Your task to perform on an android device: Open calendar and show me the fourth week of next month Image 0: 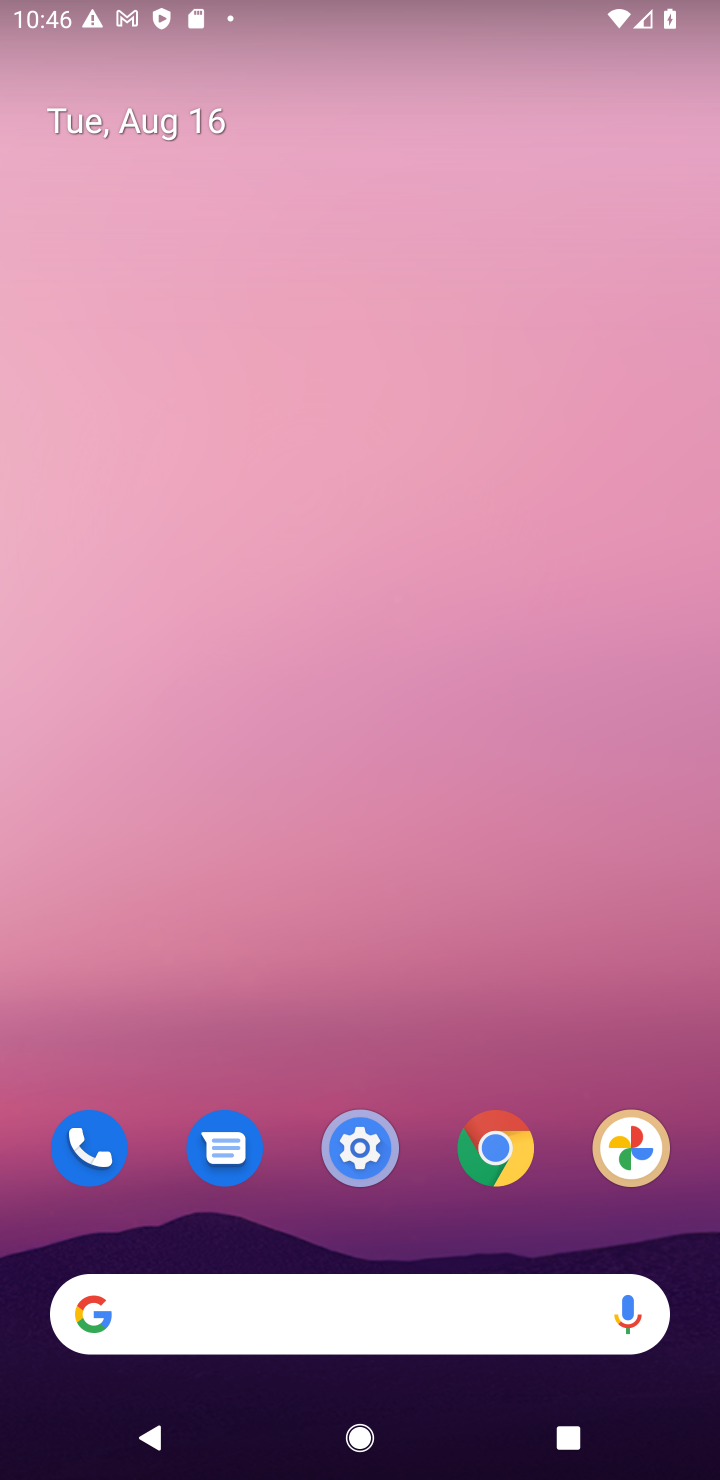
Step 0: press home button
Your task to perform on an android device: Open calendar and show me the fourth week of next month Image 1: 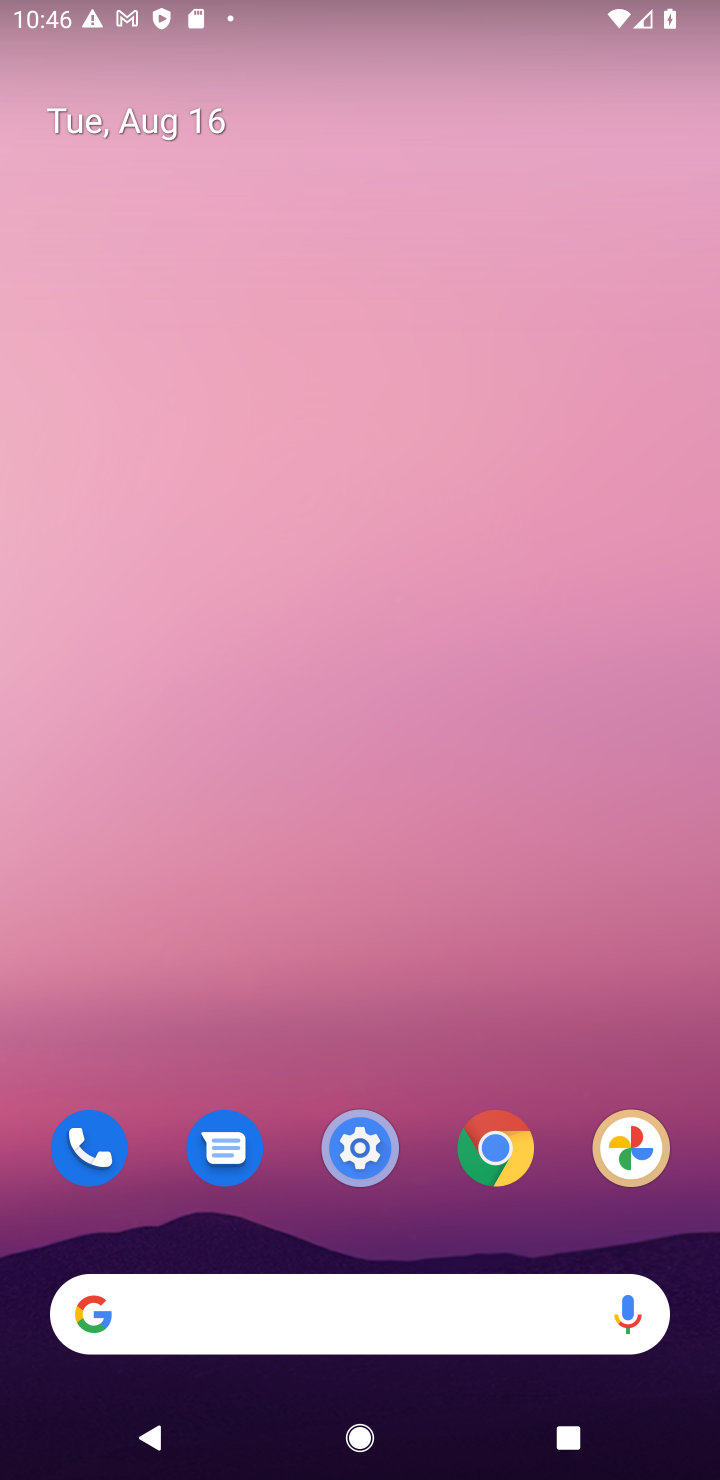
Step 1: press home button
Your task to perform on an android device: Open calendar and show me the fourth week of next month Image 2: 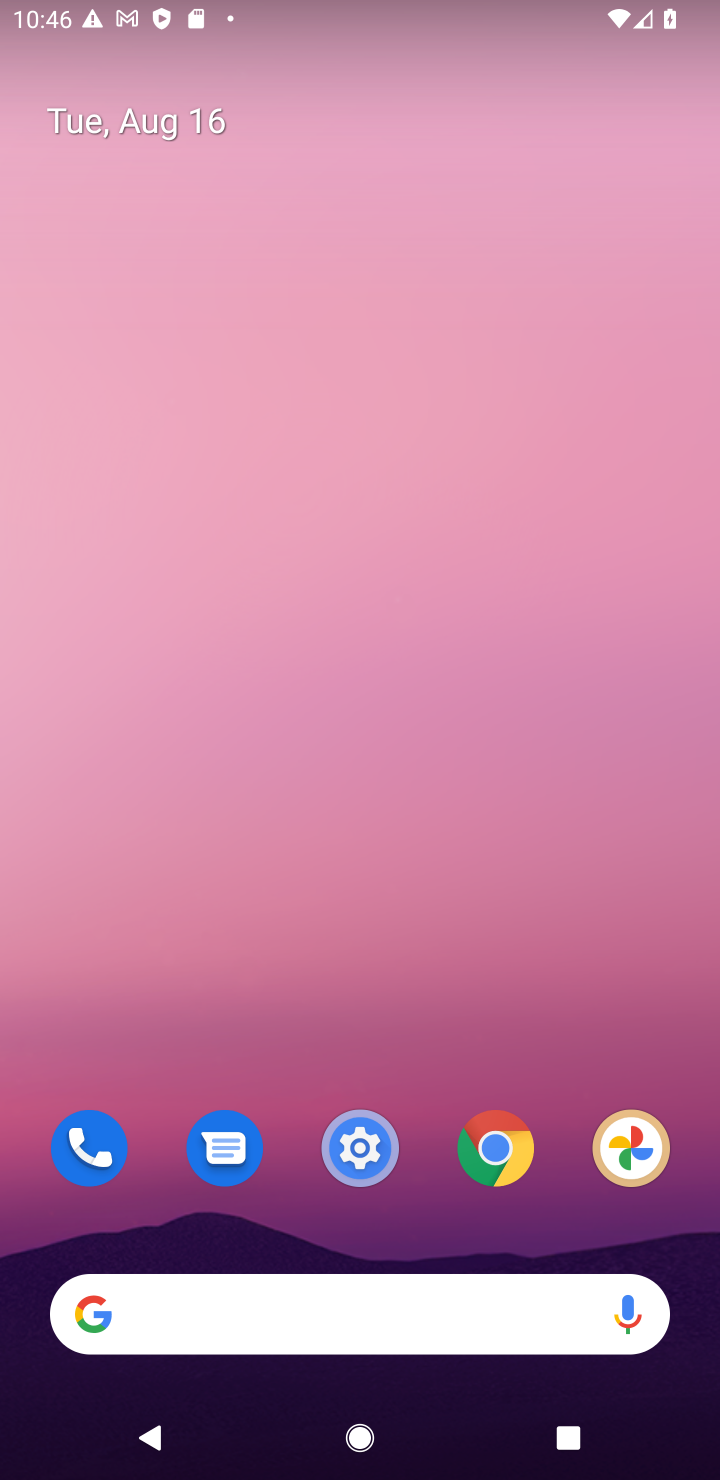
Step 2: press home button
Your task to perform on an android device: Open calendar and show me the fourth week of next month Image 3: 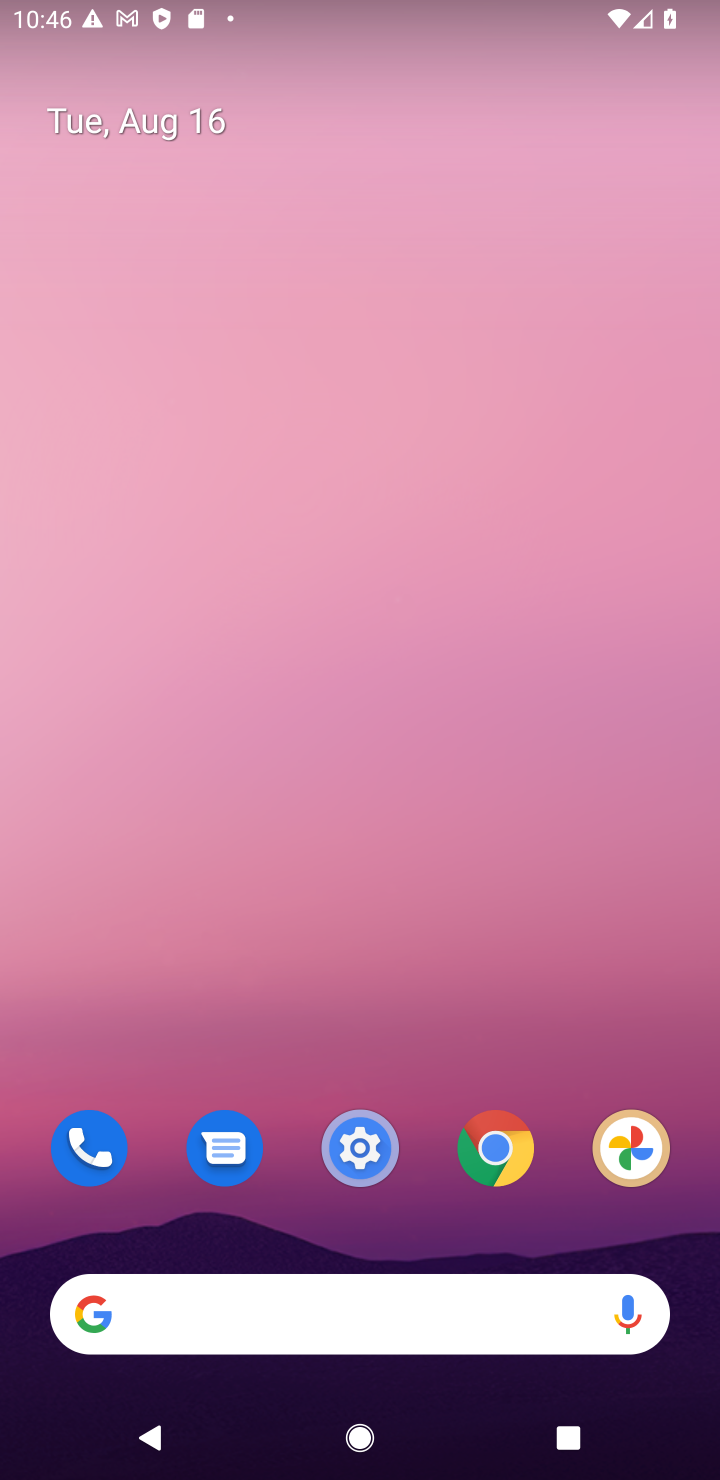
Step 3: press home button
Your task to perform on an android device: Open calendar and show me the fourth week of next month Image 4: 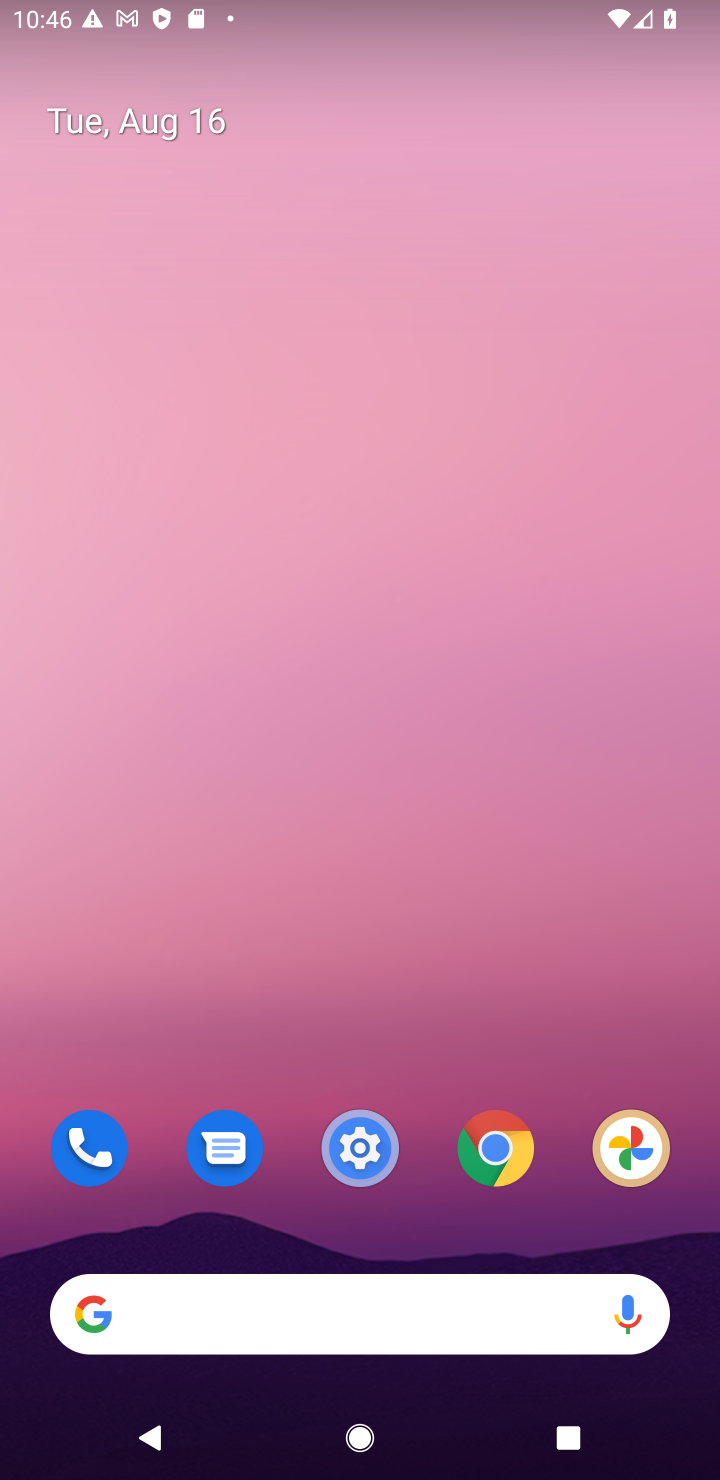
Step 4: press home button
Your task to perform on an android device: Open calendar and show me the fourth week of next month Image 5: 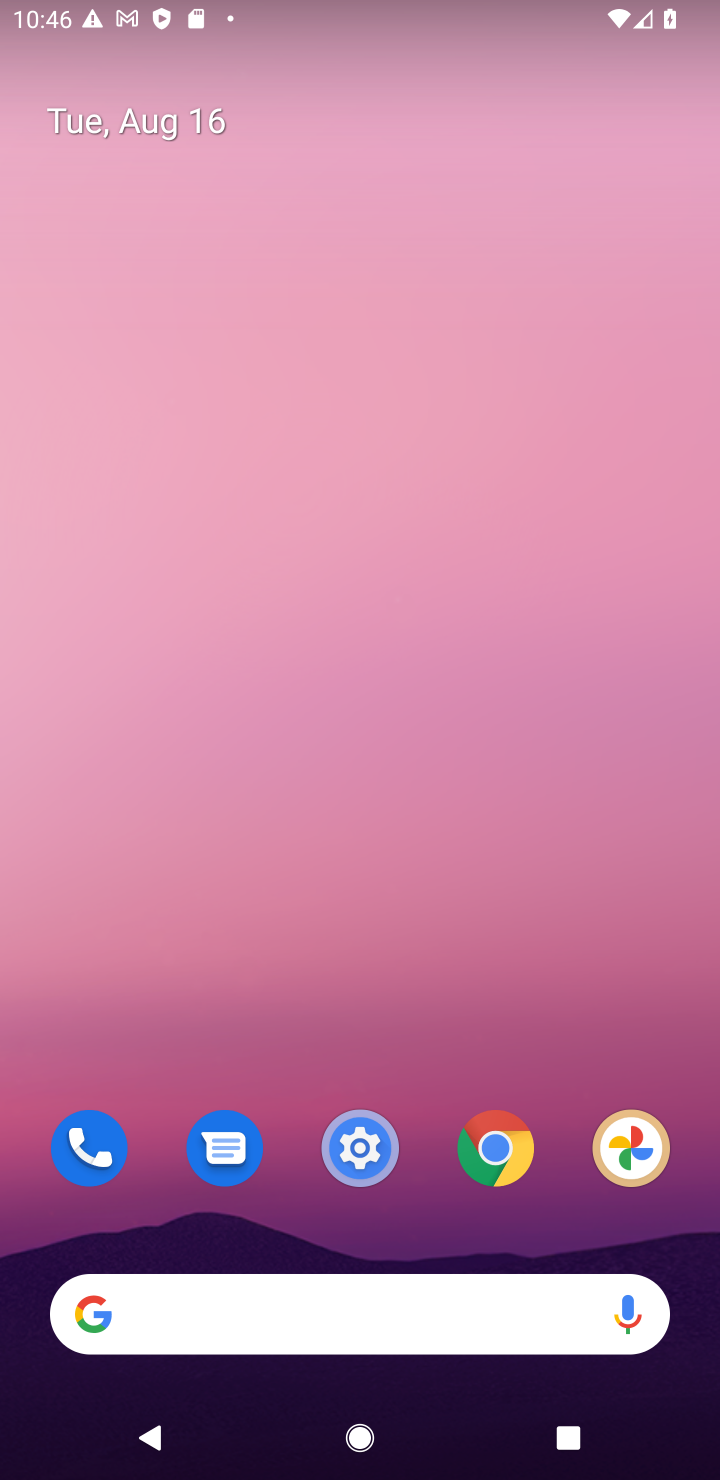
Step 5: press home button
Your task to perform on an android device: Open calendar and show me the fourth week of next month Image 6: 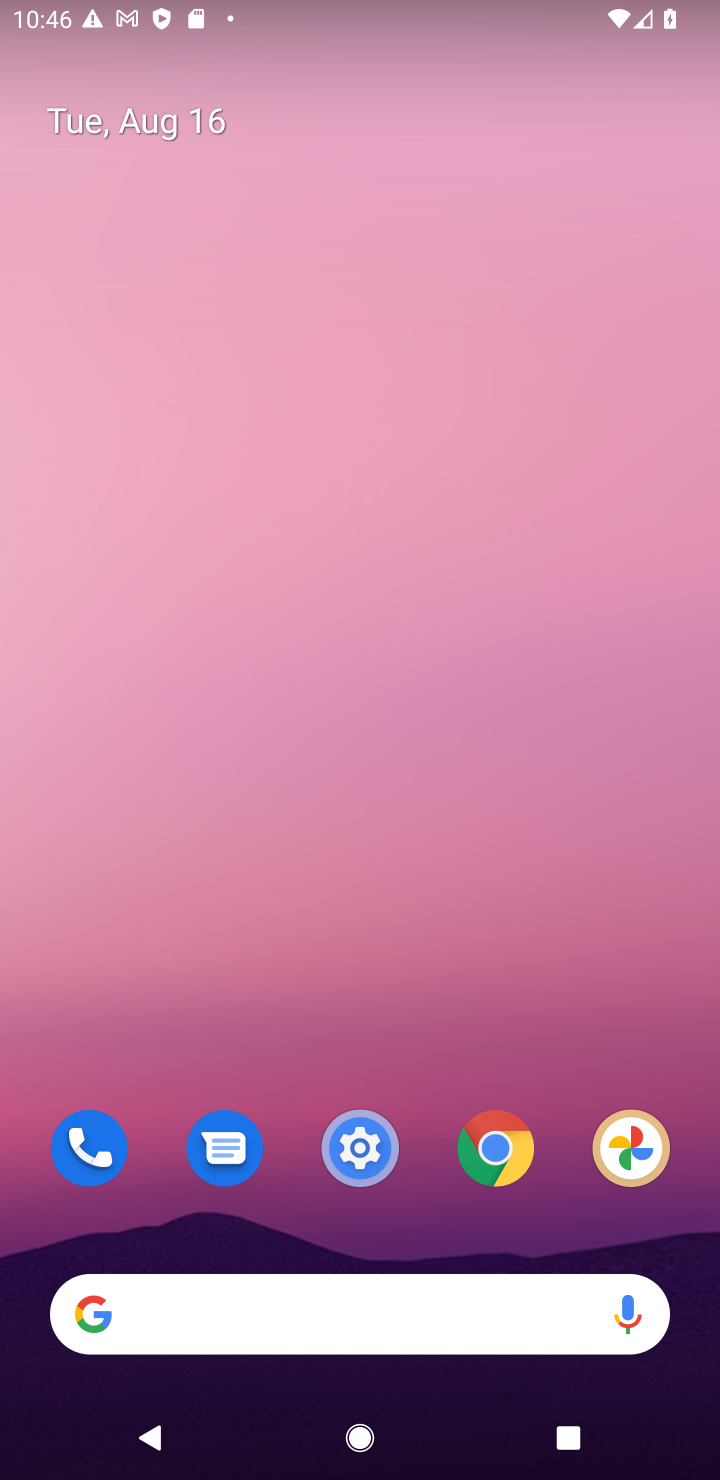
Step 6: press home button
Your task to perform on an android device: Open calendar and show me the fourth week of next month Image 7: 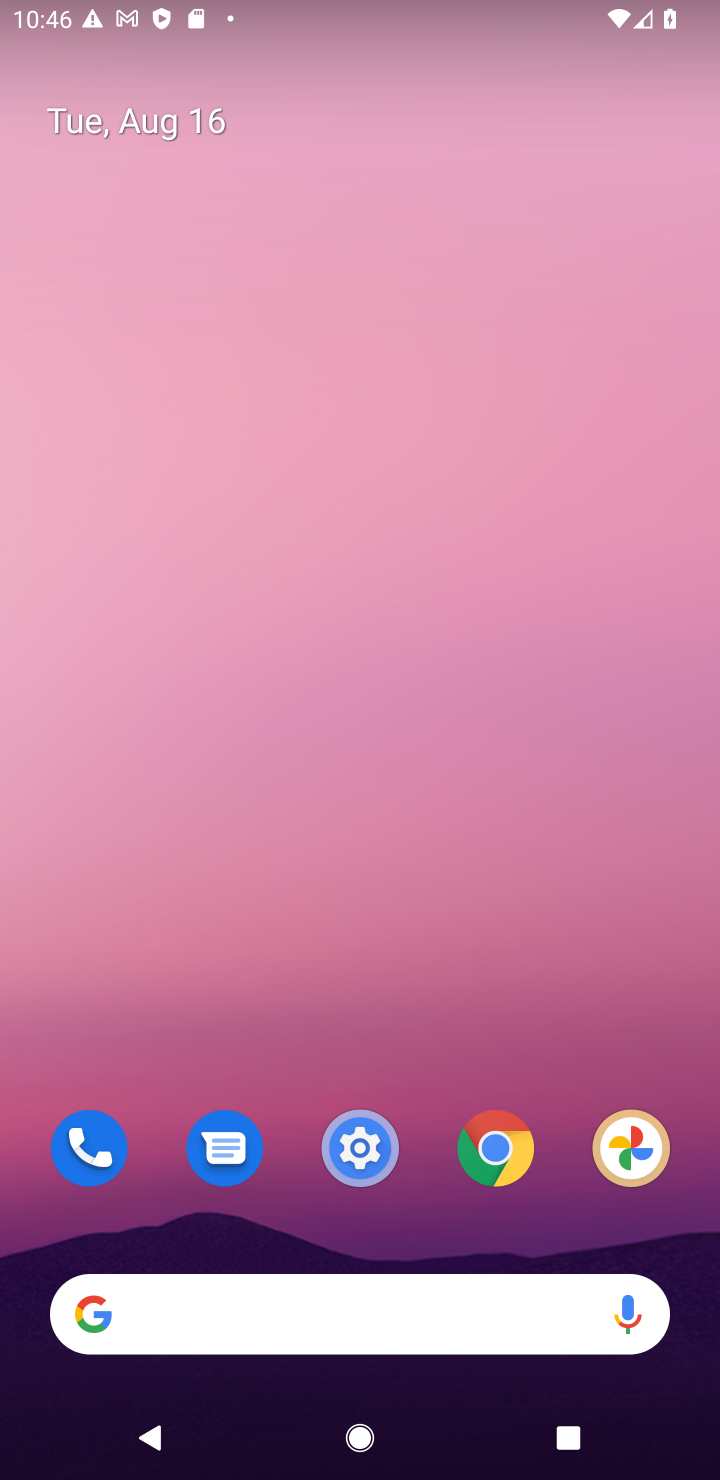
Step 7: press home button
Your task to perform on an android device: Open calendar and show me the fourth week of next month Image 8: 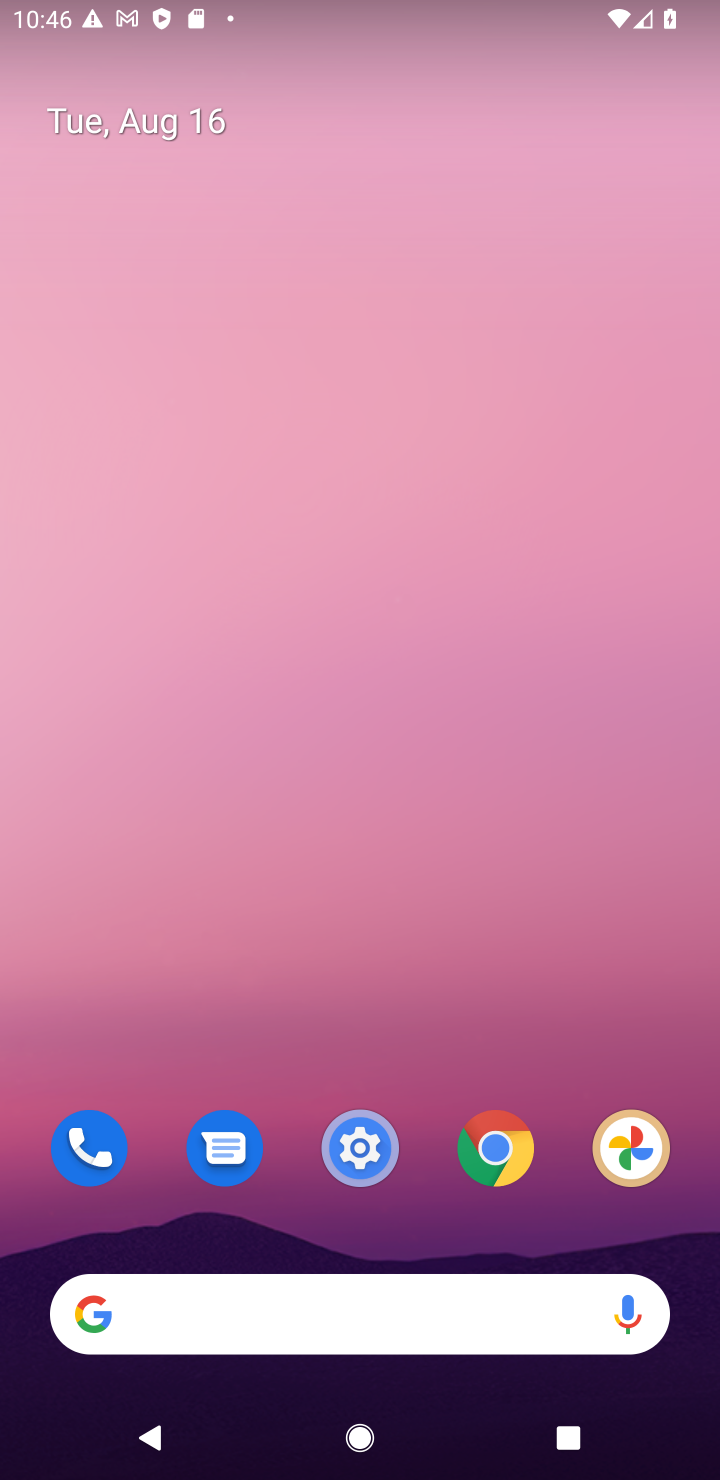
Step 8: press home button
Your task to perform on an android device: Open calendar and show me the fourth week of next month Image 9: 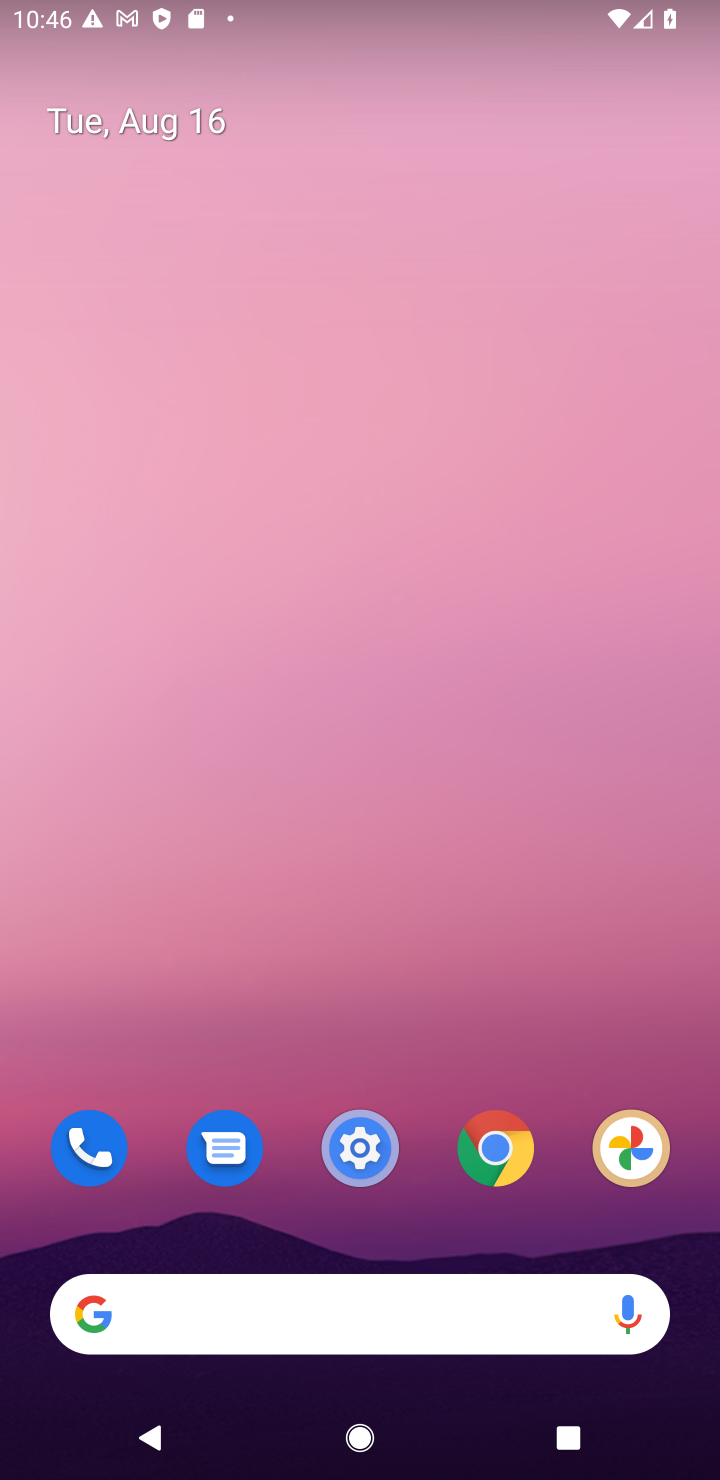
Step 9: press home button
Your task to perform on an android device: Open calendar and show me the fourth week of next month Image 10: 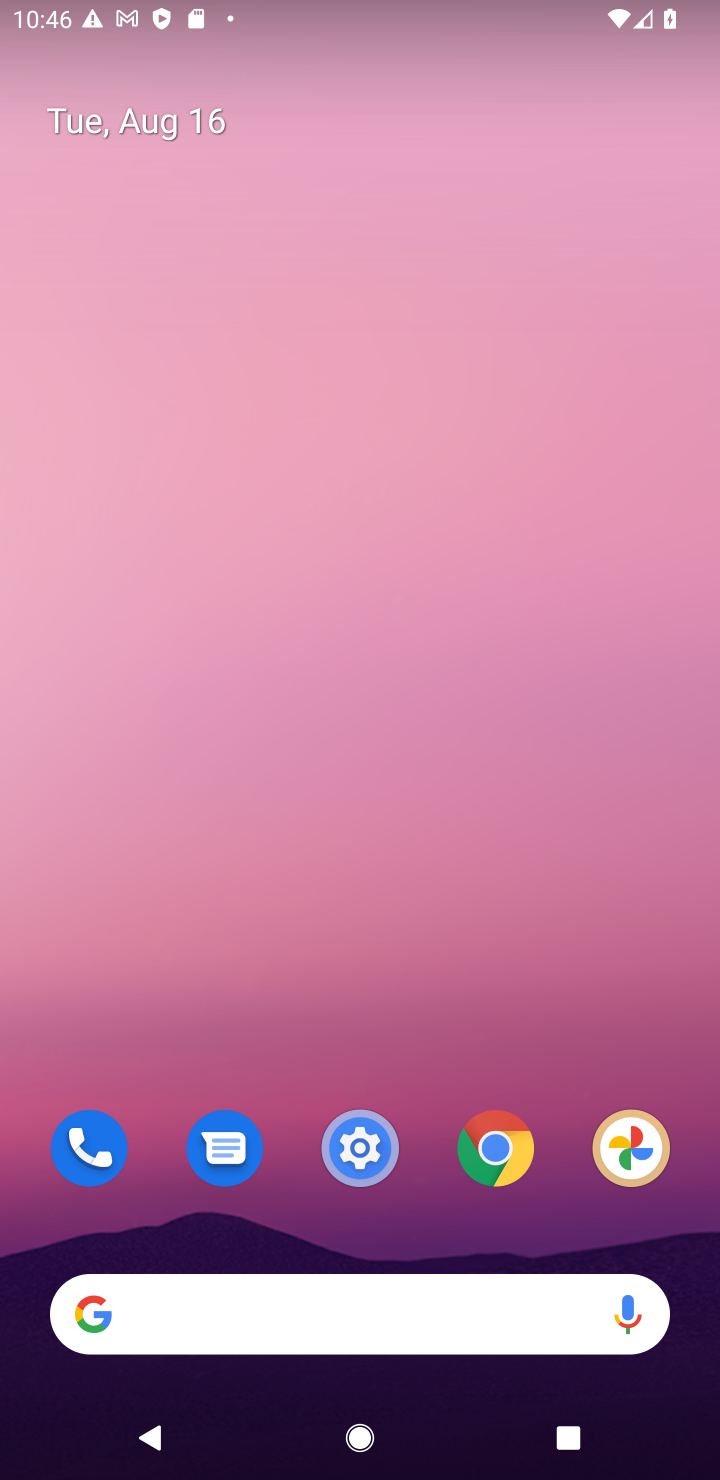
Step 10: press home button
Your task to perform on an android device: Open calendar and show me the fourth week of next month Image 11: 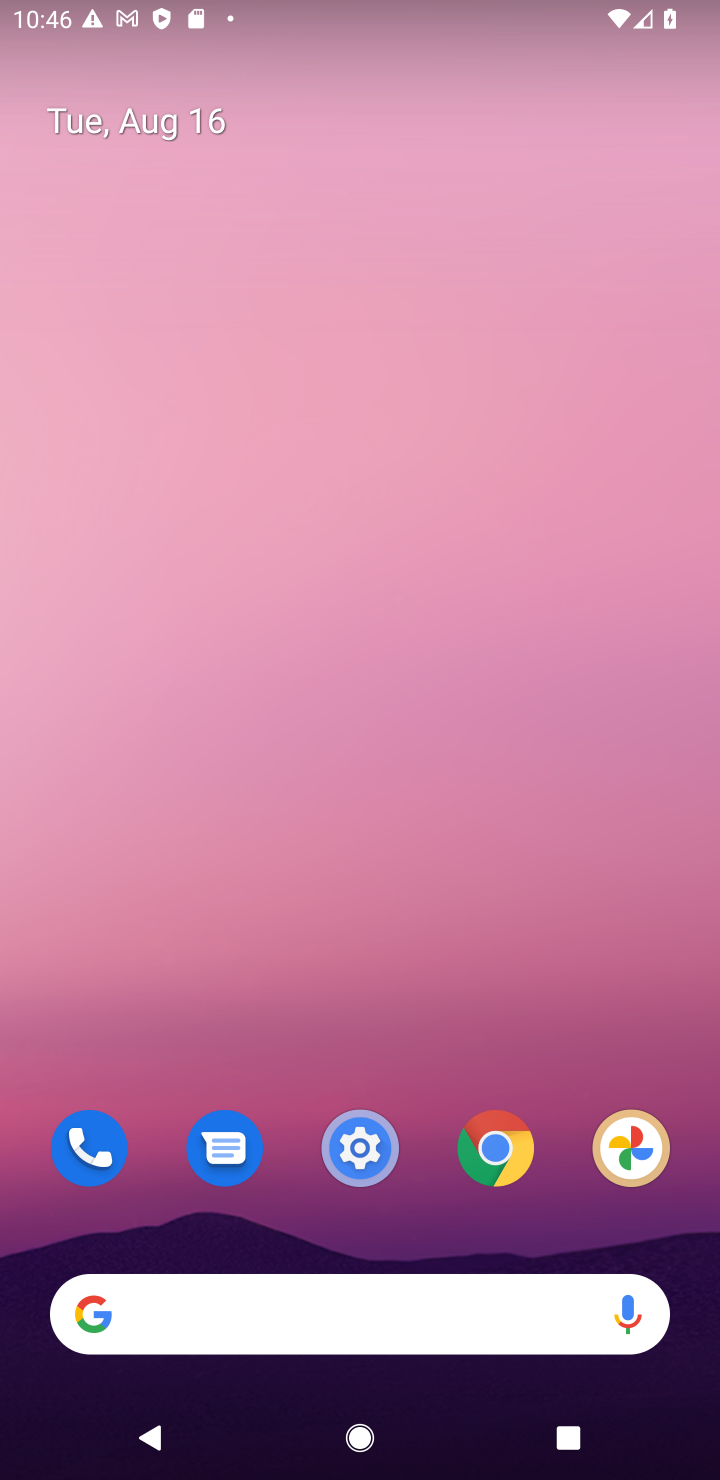
Step 11: press home button
Your task to perform on an android device: Open calendar and show me the fourth week of next month Image 12: 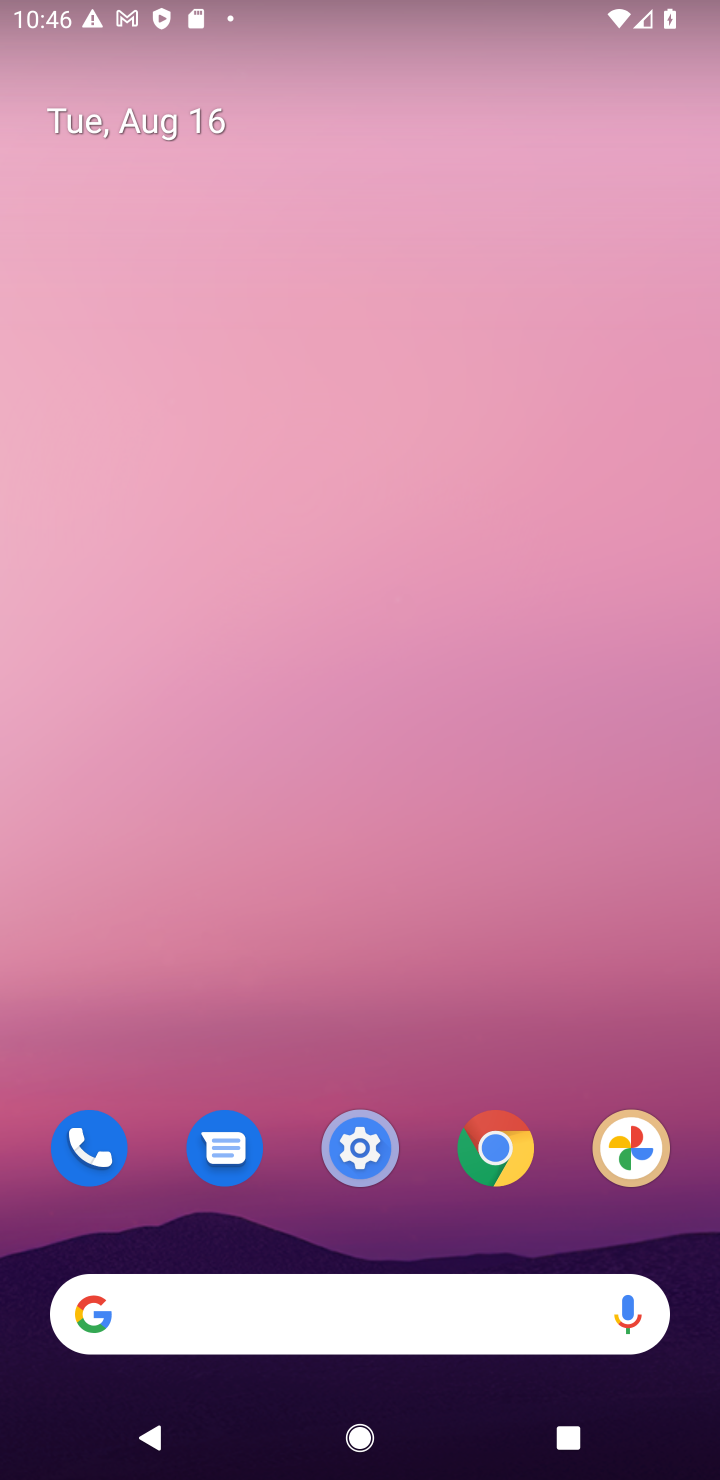
Step 12: press home button
Your task to perform on an android device: Open calendar and show me the fourth week of next month Image 13: 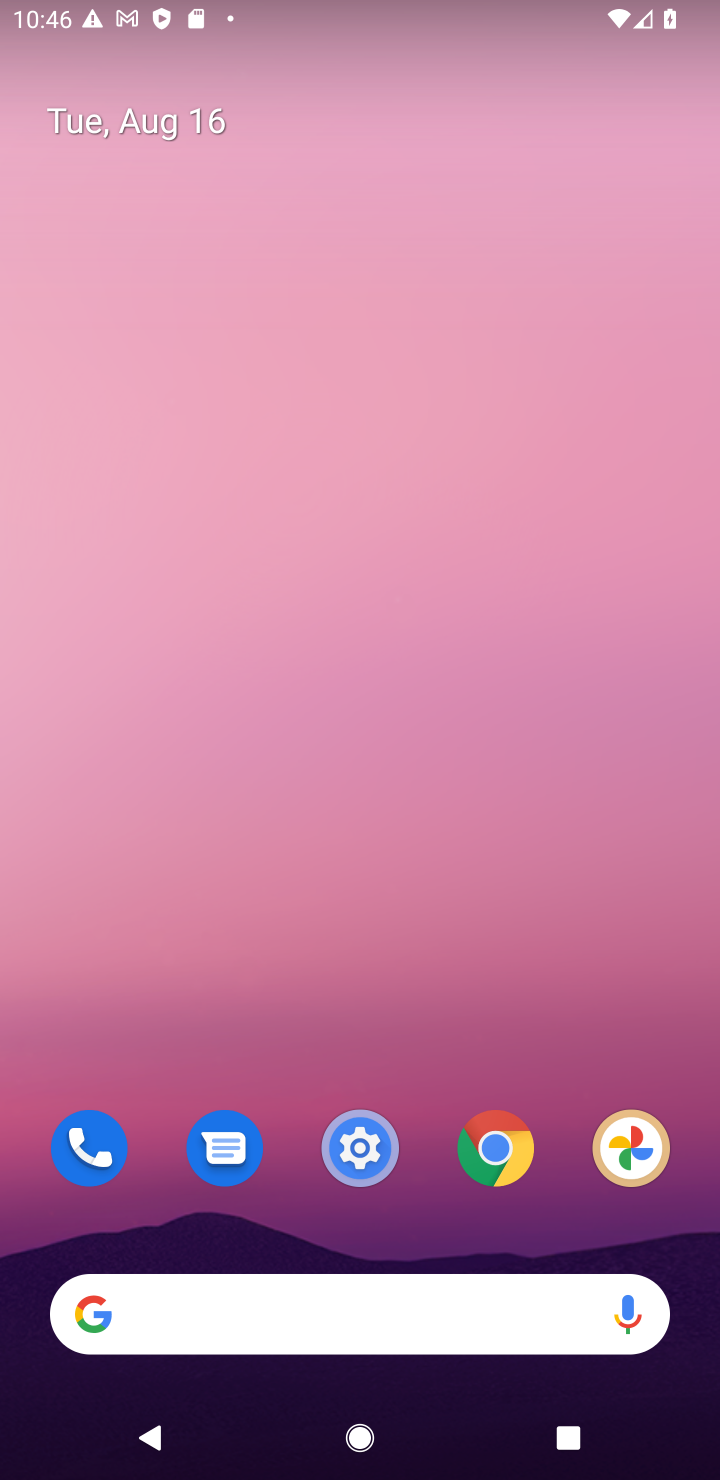
Step 13: press home button
Your task to perform on an android device: Open calendar and show me the fourth week of next month Image 14: 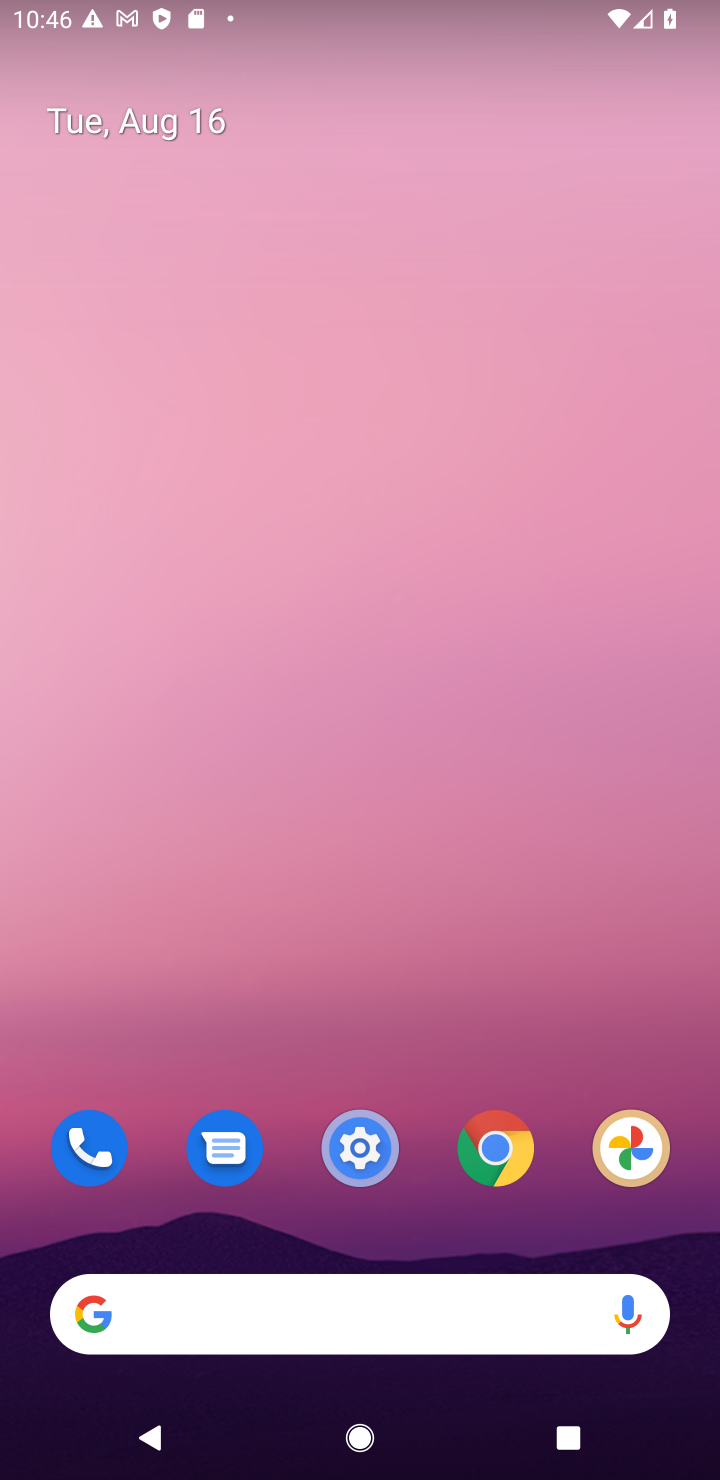
Step 14: press home button
Your task to perform on an android device: Open calendar and show me the fourth week of next month Image 15: 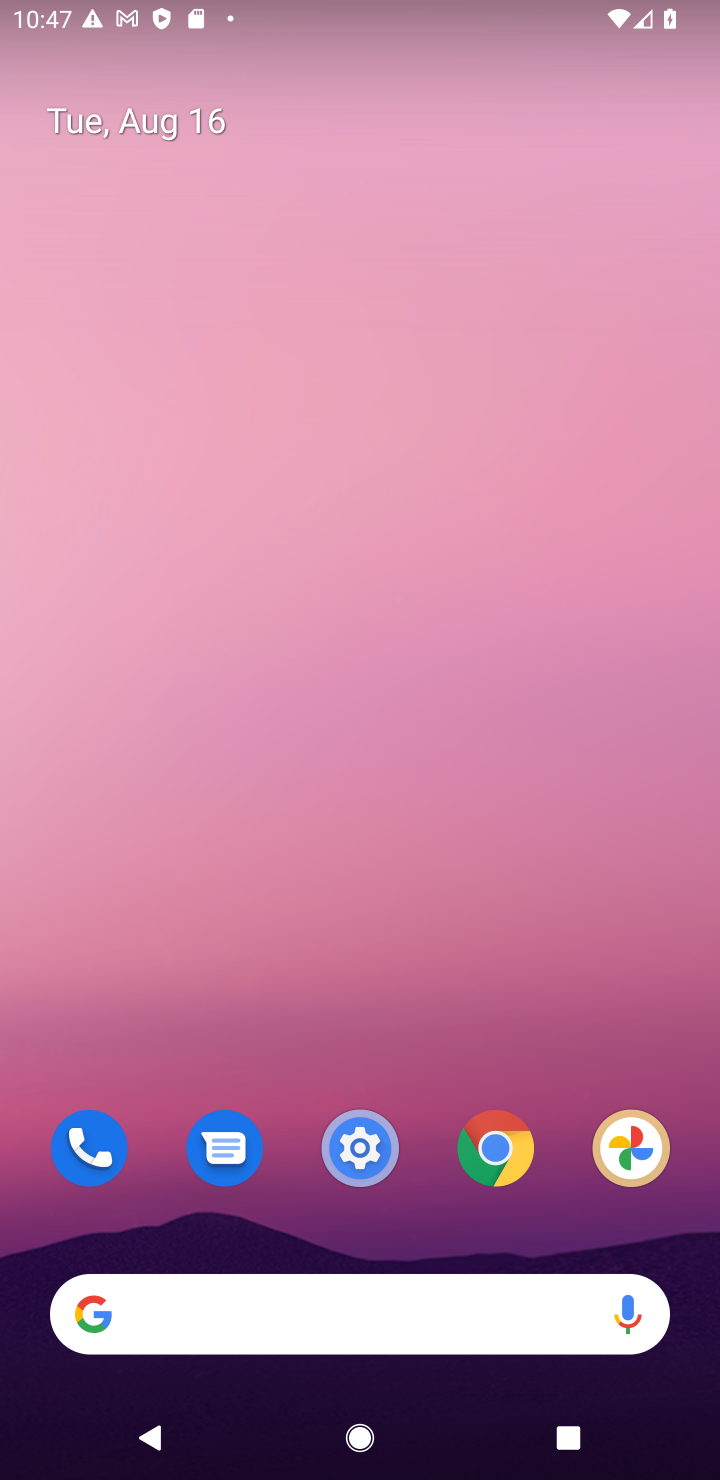
Step 15: drag from (384, 1211) to (620, 133)
Your task to perform on an android device: Open calendar and show me the fourth week of next month Image 16: 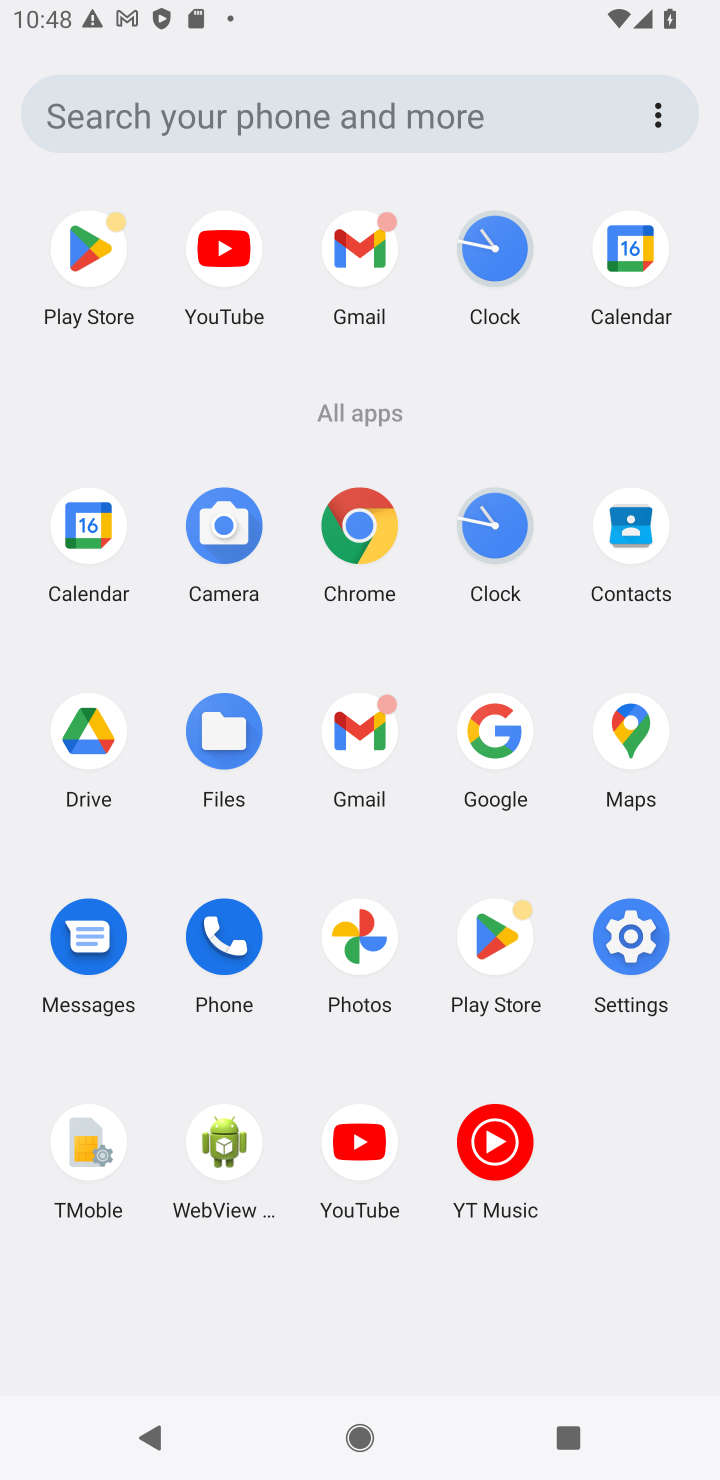
Step 16: click (63, 558)
Your task to perform on an android device: Open calendar and show me the fourth week of next month Image 17: 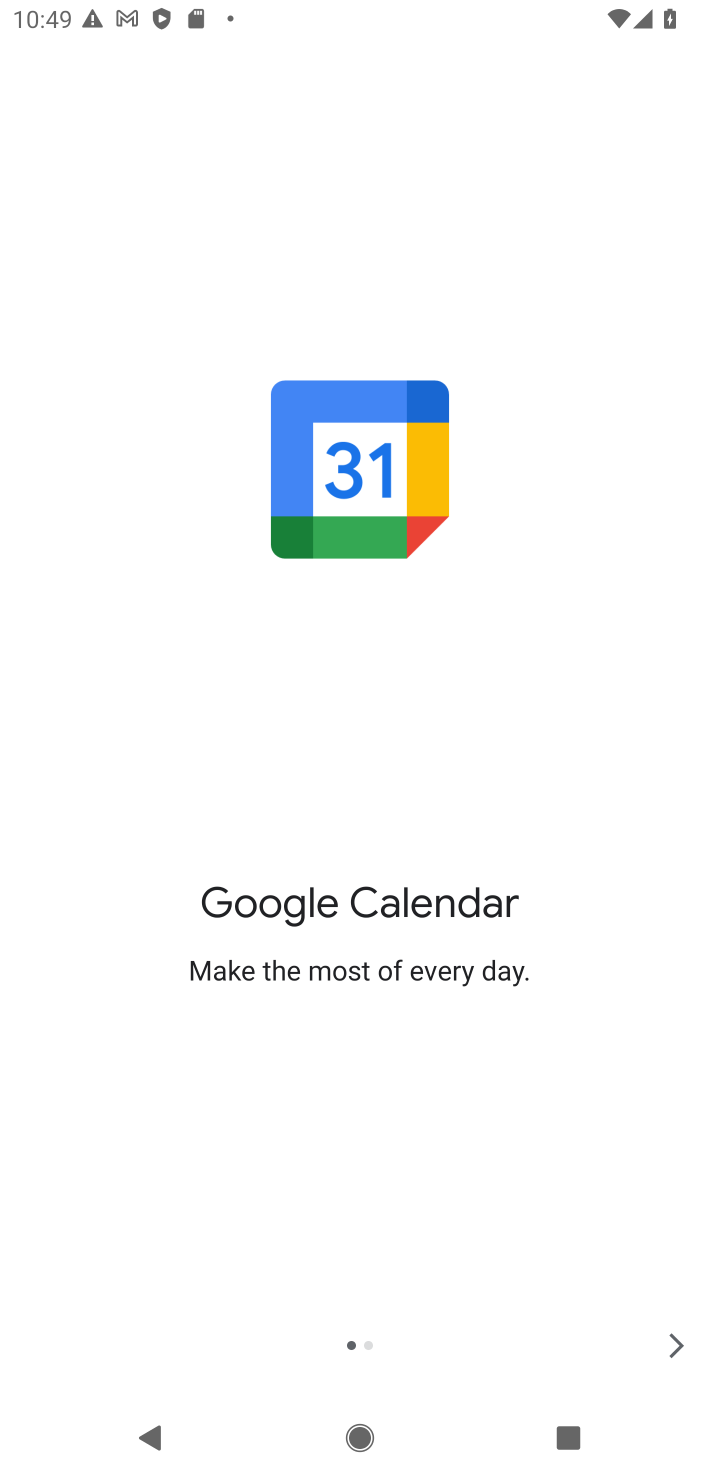
Step 17: click (657, 1366)
Your task to perform on an android device: Open calendar and show me the fourth week of next month Image 18: 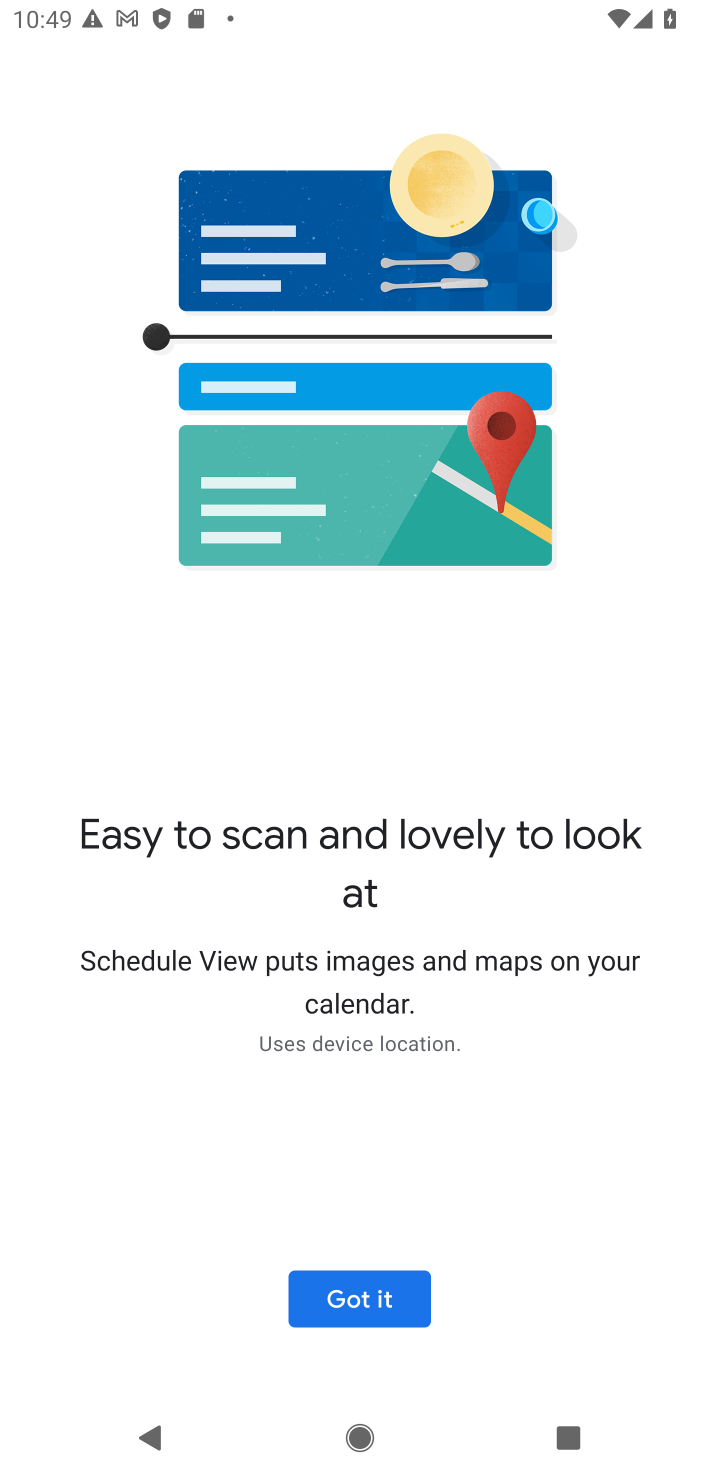
Step 18: click (657, 1366)
Your task to perform on an android device: Open calendar and show me the fourth week of next month Image 19: 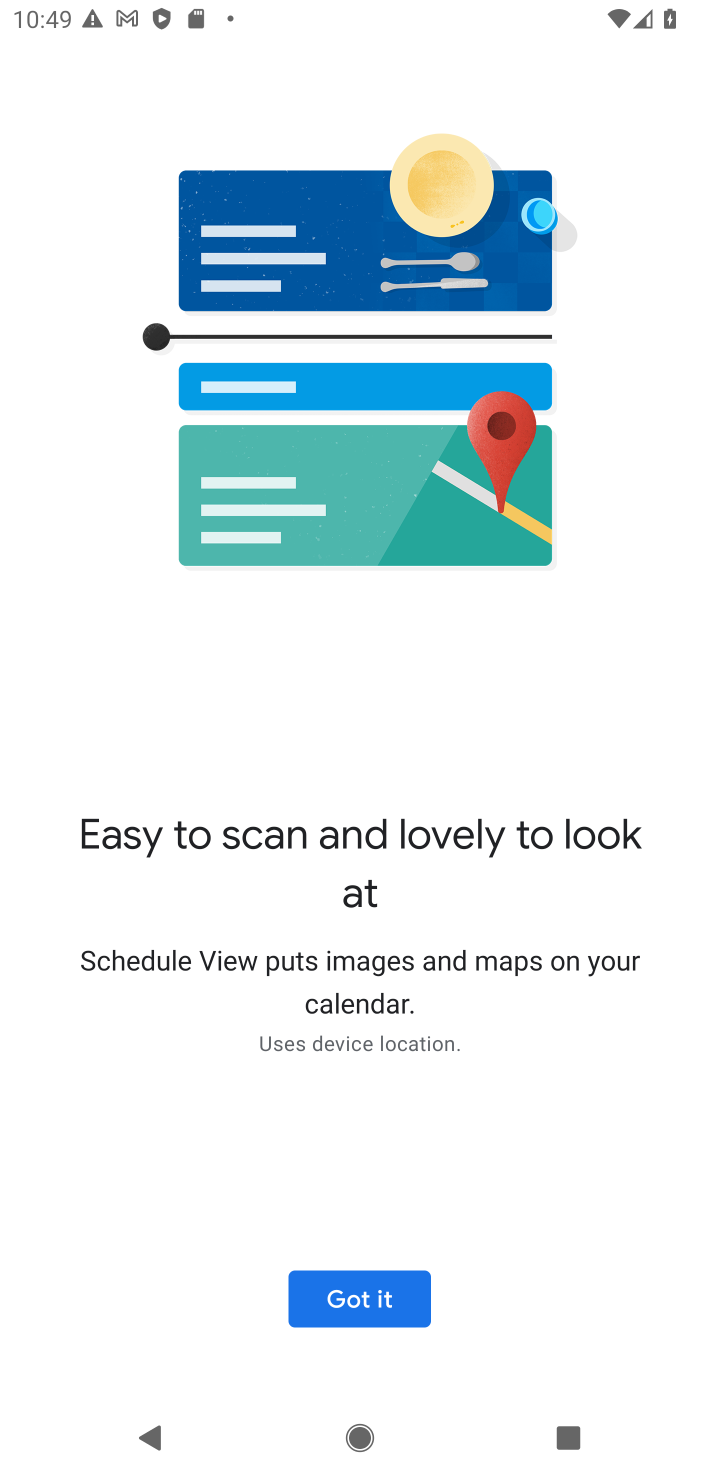
Step 19: click (185, 1311)
Your task to perform on an android device: Open calendar and show me the fourth week of next month Image 20: 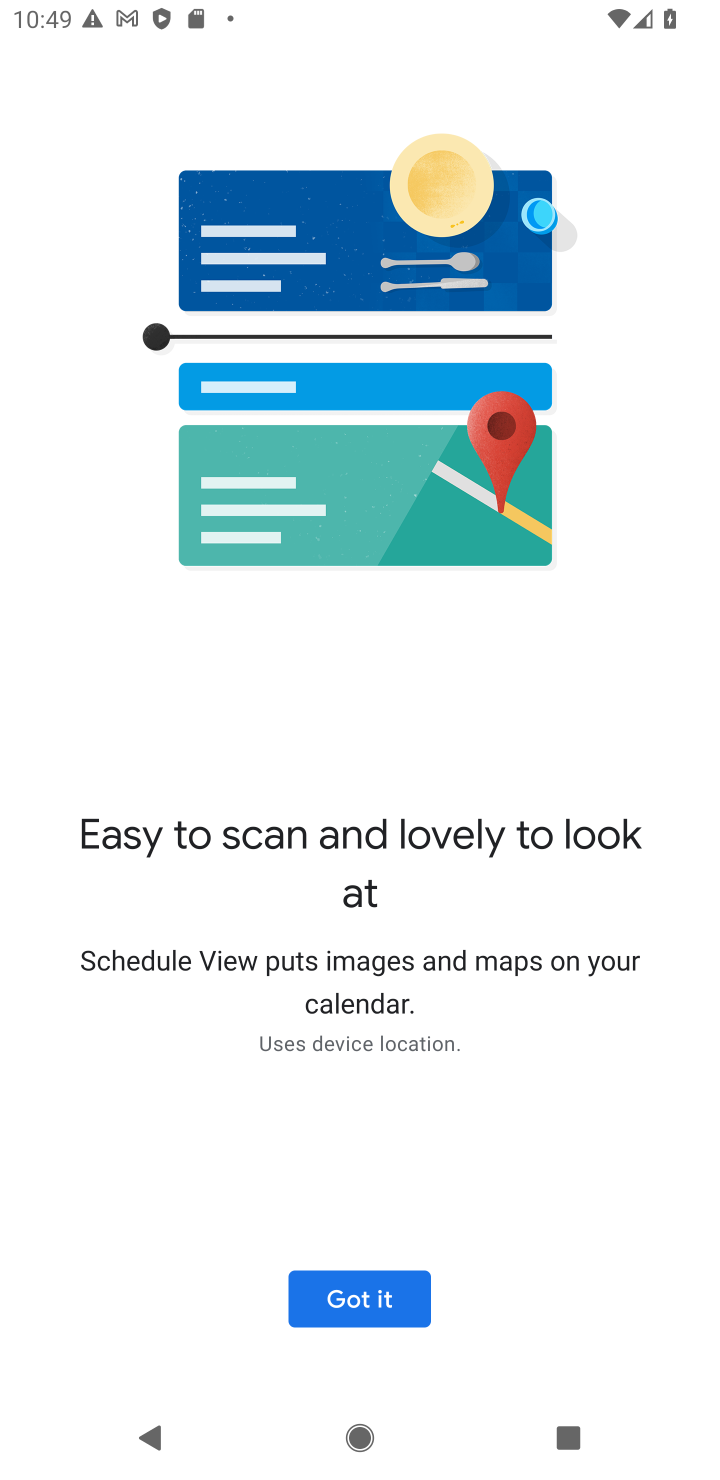
Step 20: click (344, 1315)
Your task to perform on an android device: Open calendar and show me the fourth week of next month Image 21: 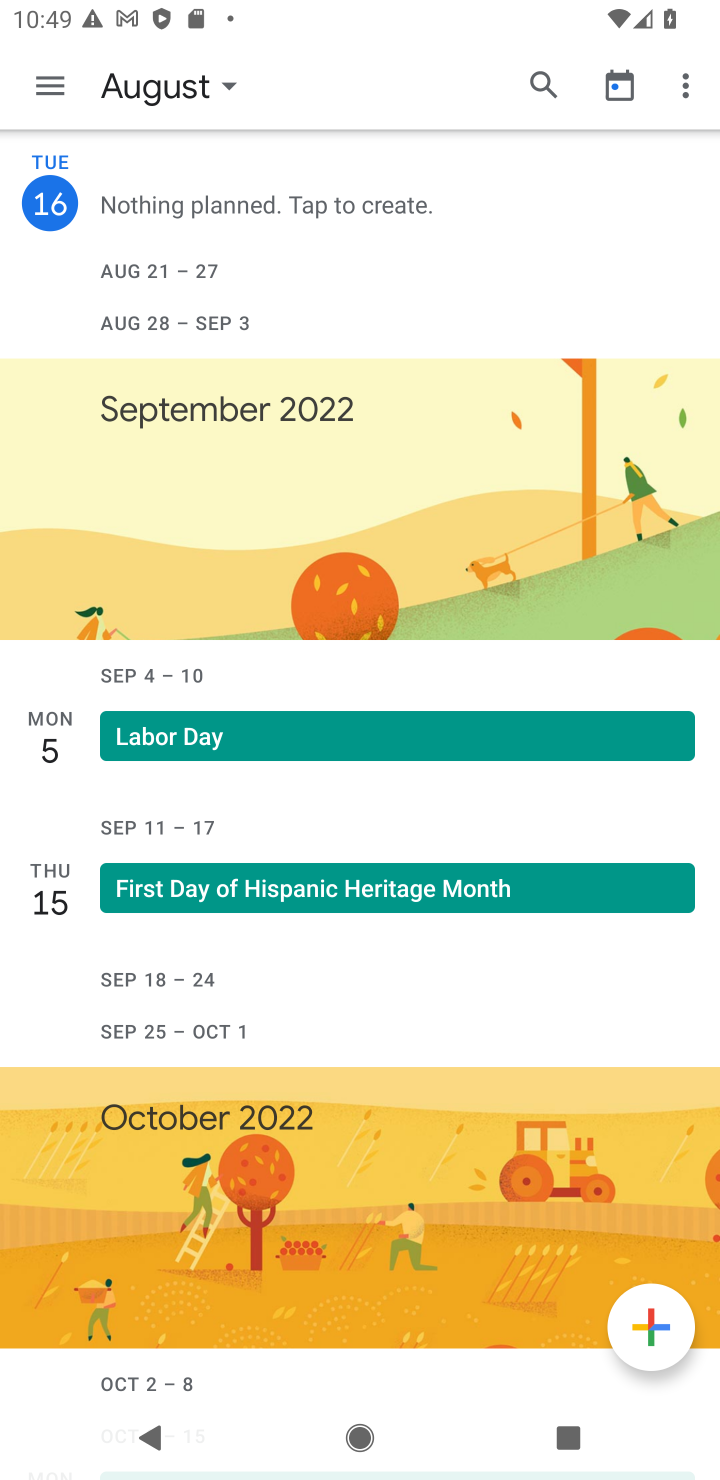
Step 21: click (189, 103)
Your task to perform on an android device: Open calendar and show me the fourth week of next month Image 22: 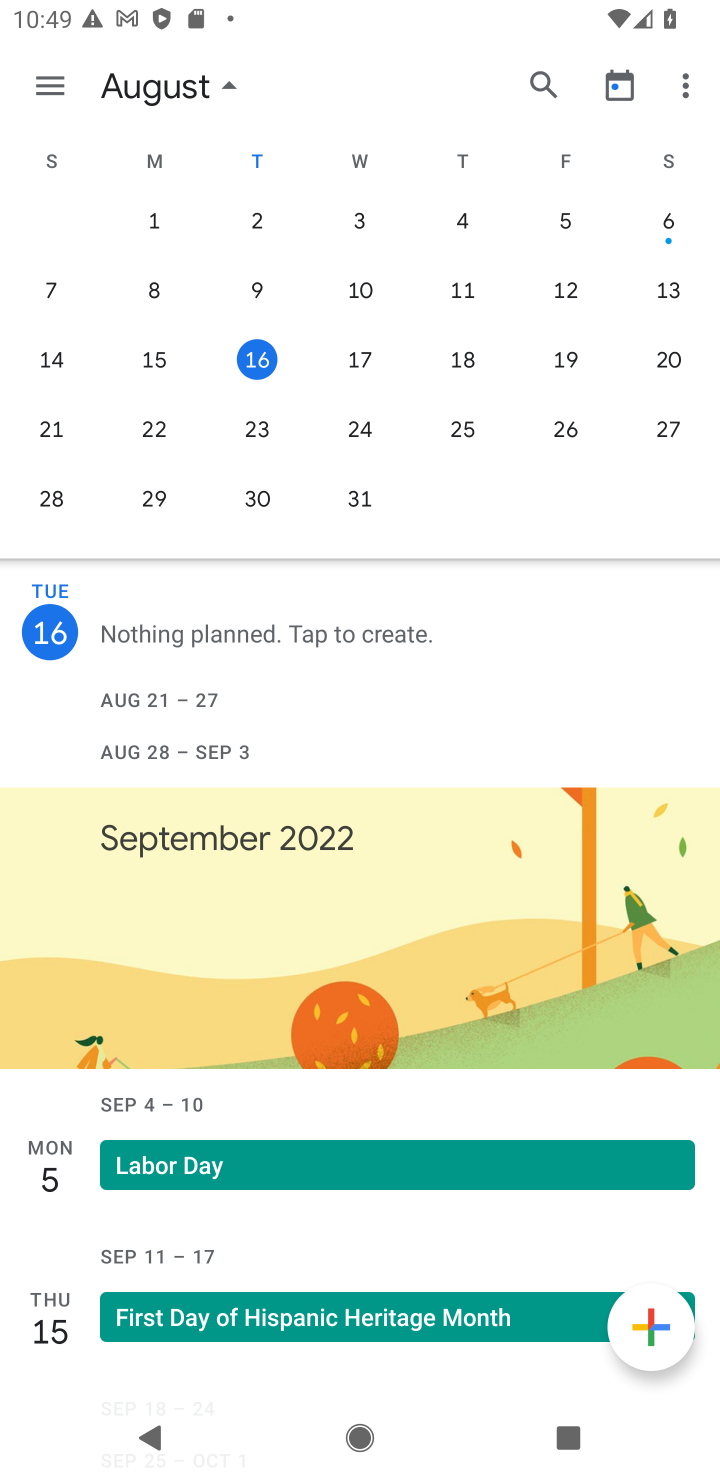
Step 22: drag from (607, 322) to (81, 315)
Your task to perform on an android device: Open calendar and show me the fourth week of next month Image 23: 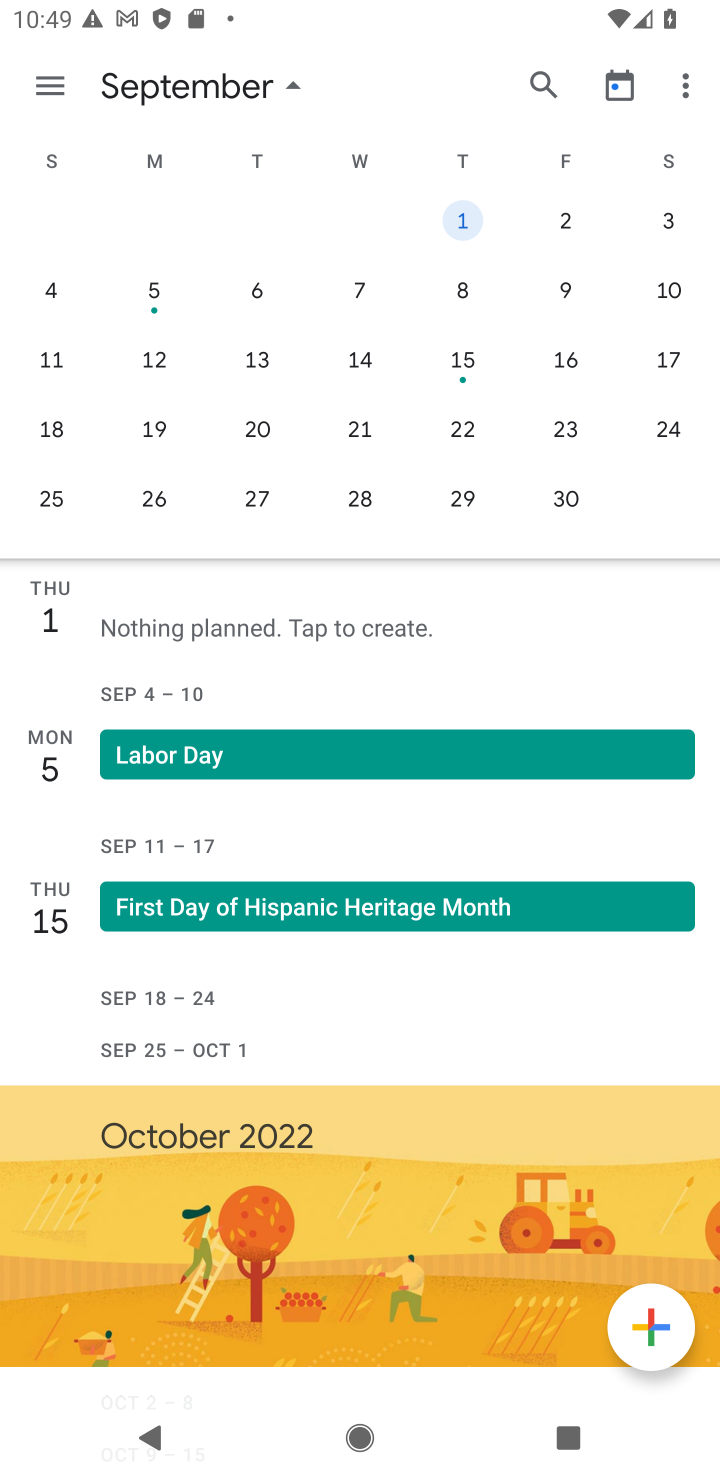
Step 23: click (471, 448)
Your task to perform on an android device: Open calendar and show me the fourth week of next month Image 24: 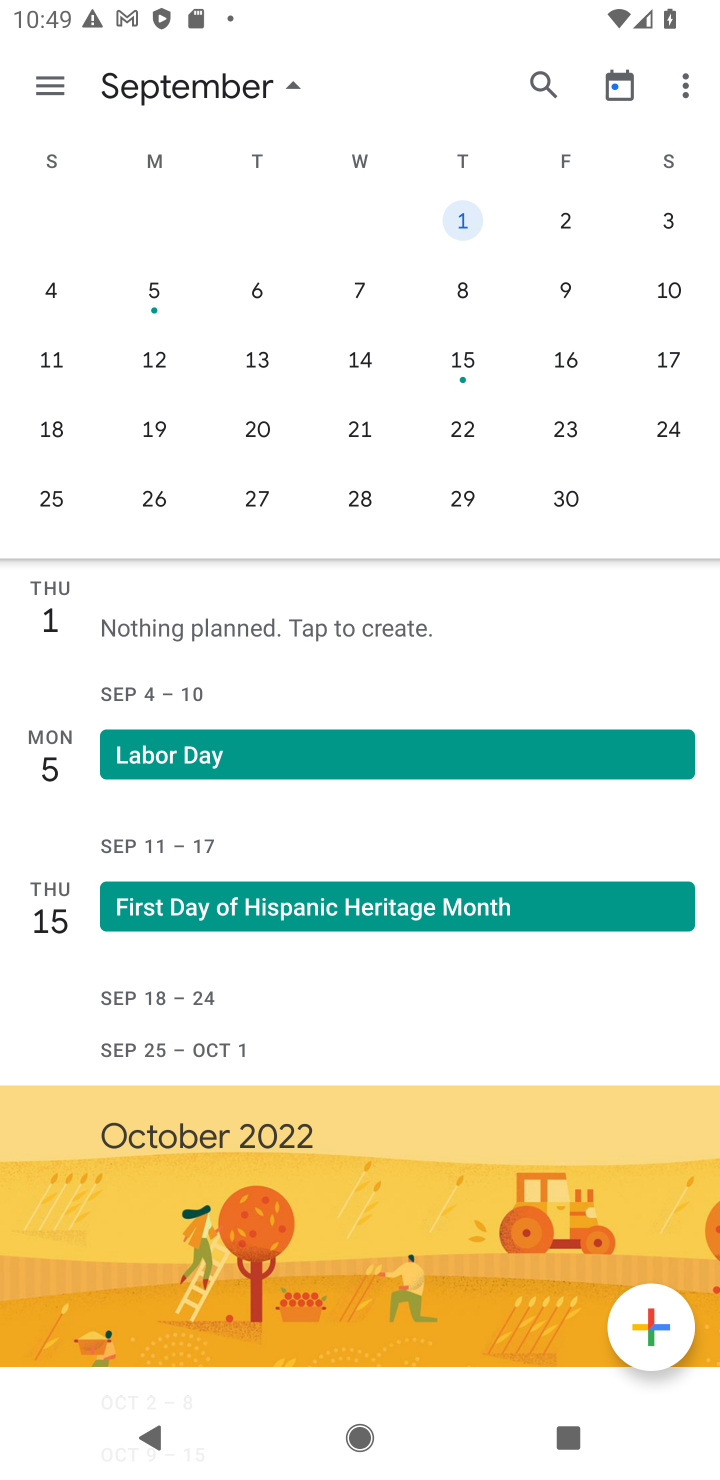
Step 24: click (459, 429)
Your task to perform on an android device: Open calendar and show me the fourth week of next month Image 25: 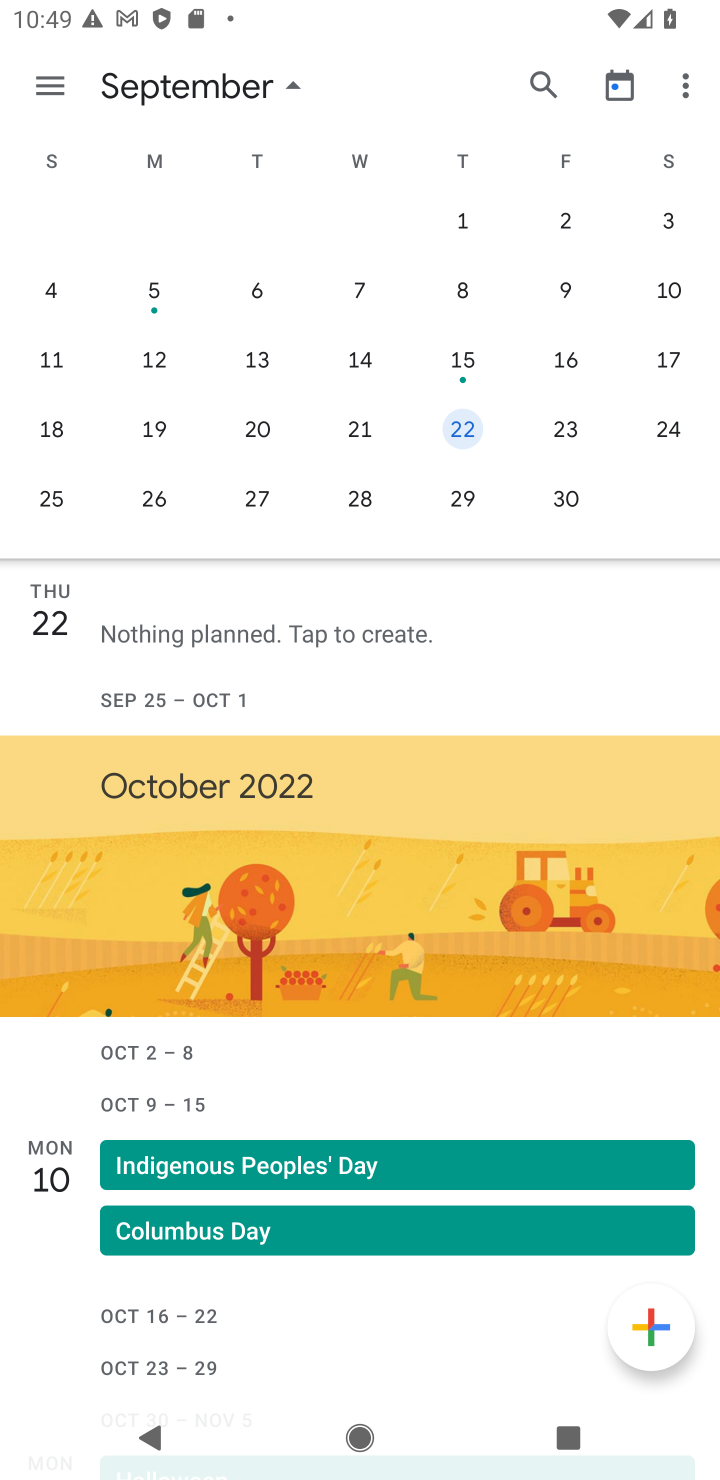
Step 25: task complete